Your task to perform on an android device: Search for Mexican restaurants on Maps Image 0: 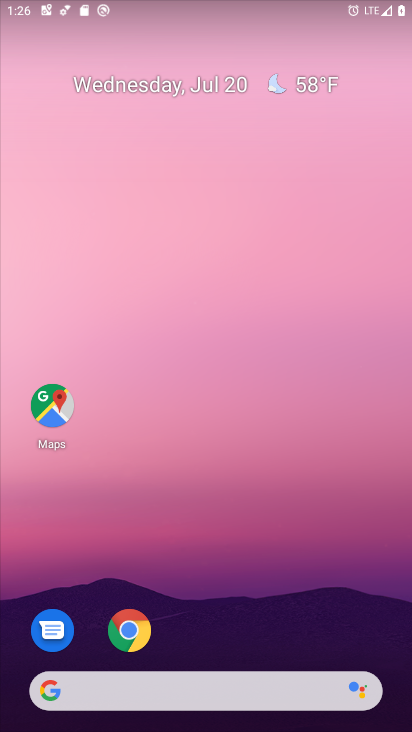
Step 0: drag from (197, 567) to (180, 96)
Your task to perform on an android device: Search for Mexican restaurants on Maps Image 1: 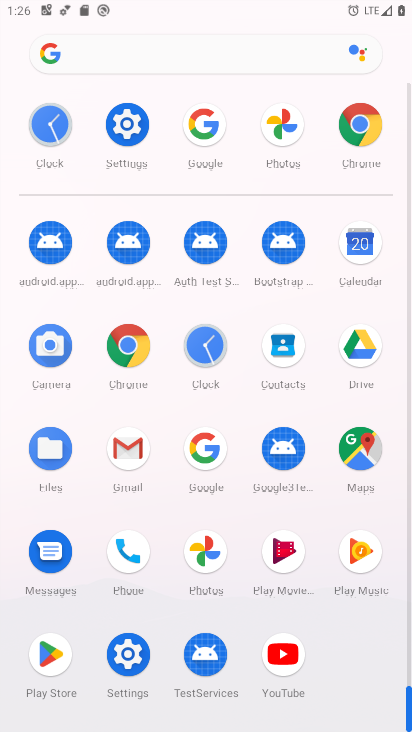
Step 1: click (351, 468)
Your task to perform on an android device: Search for Mexican restaurants on Maps Image 2: 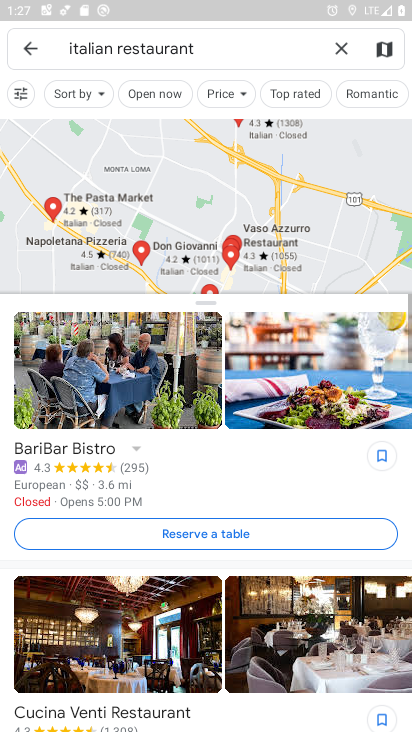
Step 2: click (341, 50)
Your task to perform on an android device: Search for Mexican restaurants on Maps Image 3: 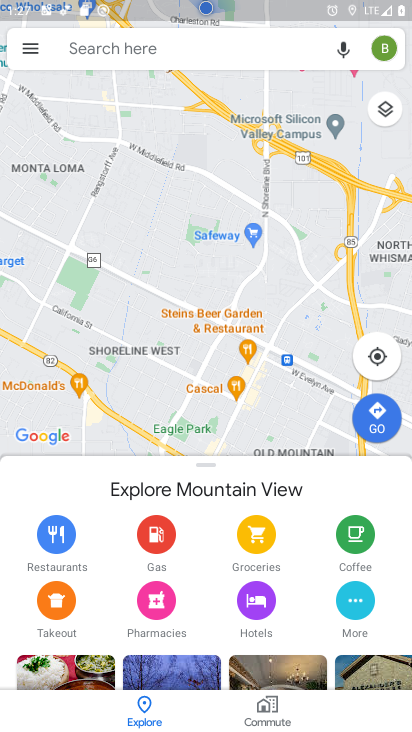
Step 3: click (122, 45)
Your task to perform on an android device: Search for Mexican restaurants on Maps Image 4: 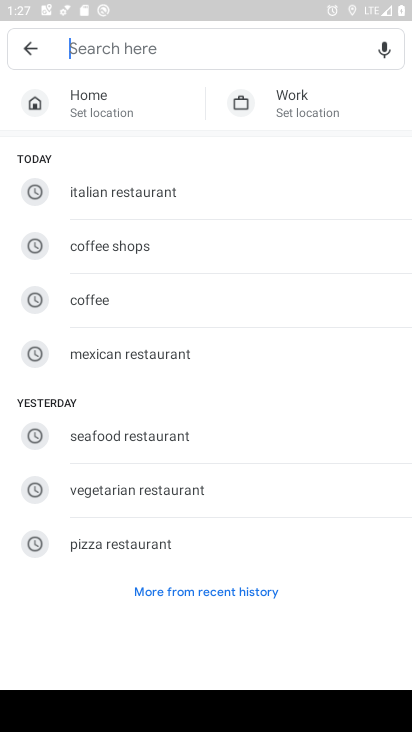
Step 4: click (146, 360)
Your task to perform on an android device: Search for Mexican restaurants on Maps Image 5: 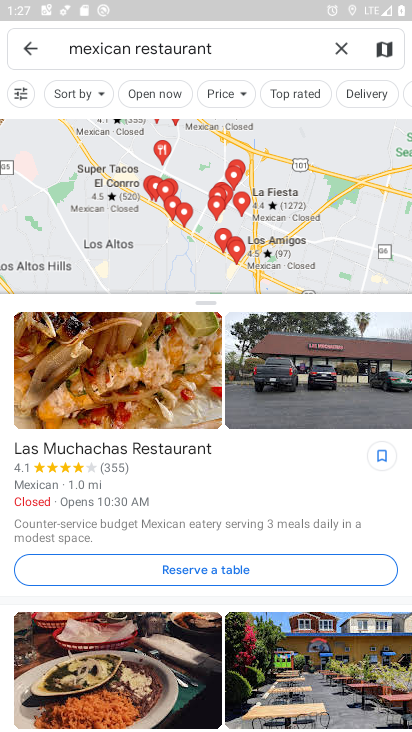
Step 5: task complete